Your task to perform on an android device: Clear the shopping cart on target.com. Search for macbook air on target.com, select the first entry, add it to the cart, then select checkout. Image 0: 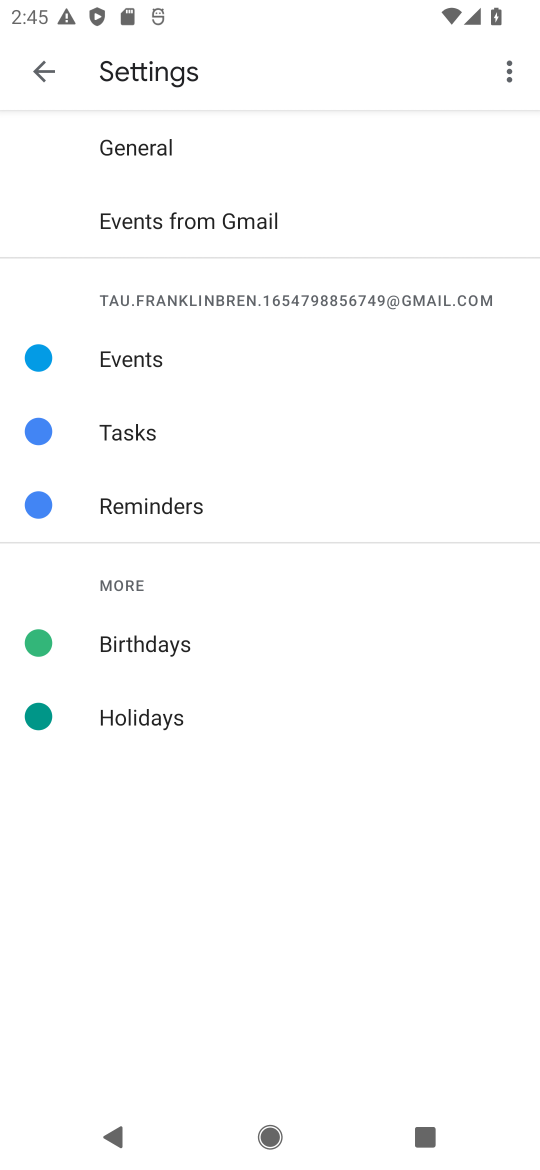
Step 0: press home button
Your task to perform on an android device: Clear the shopping cart on target.com. Search for macbook air on target.com, select the first entry, add it to the cart, then select checkout. Image 1: 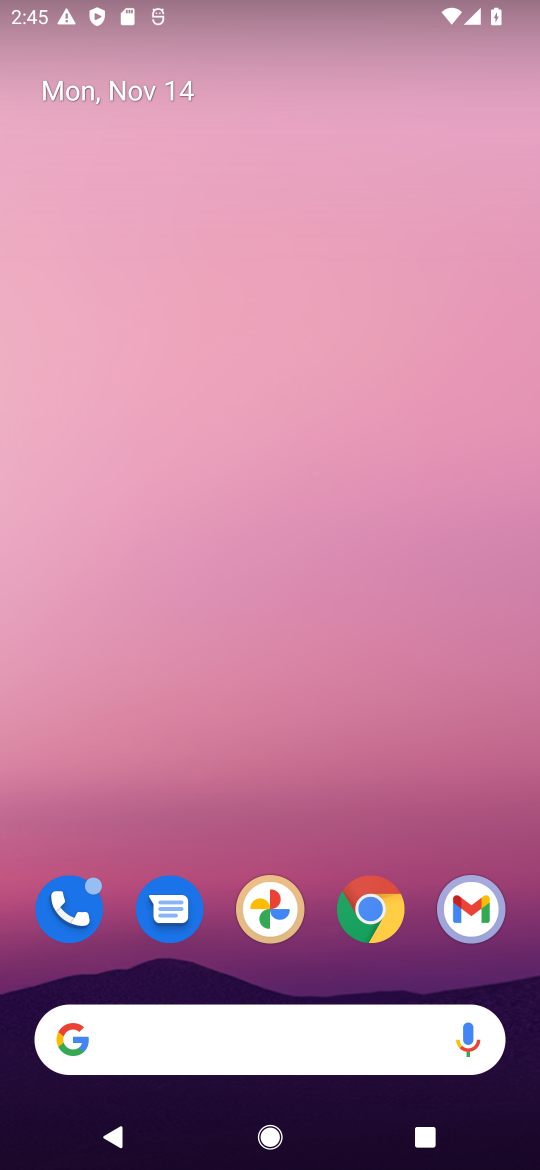
Step 1: drag from (313, 910) to (276, 4)
Your task to perform on an android device: Clear the shopping cart on target.com. Search for macbook air on target.com, select the first entry, add it to the cart, then select checkout. Image 2: 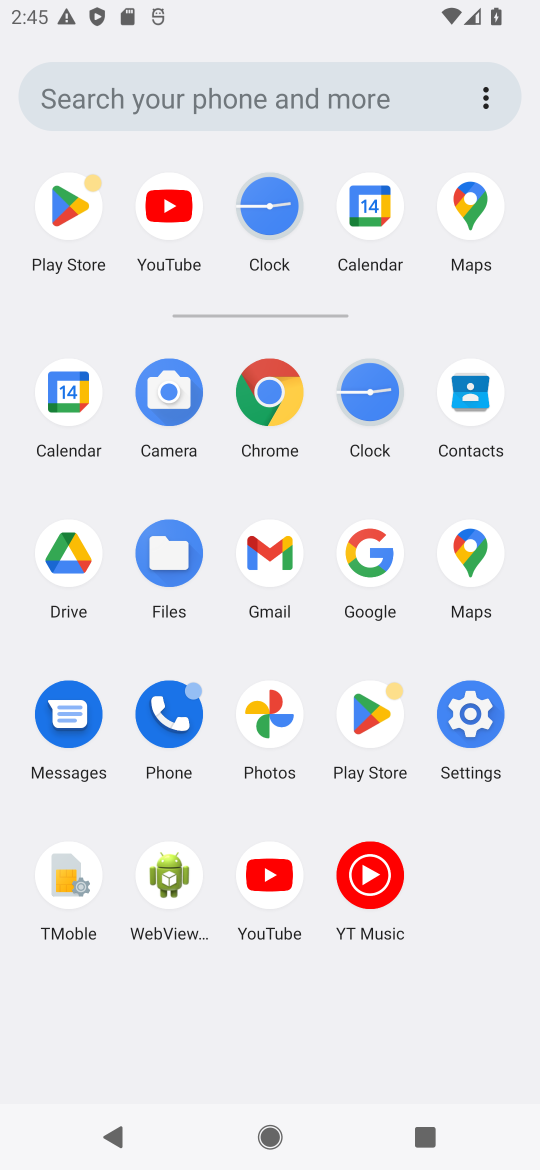
Step 2: click (276, 392)
Your task to perform on an android device: Clear the shopping cart on target.com. Search for macbook air on target.com, select the first entry, add it to the cart, then select checkout. Image 3: 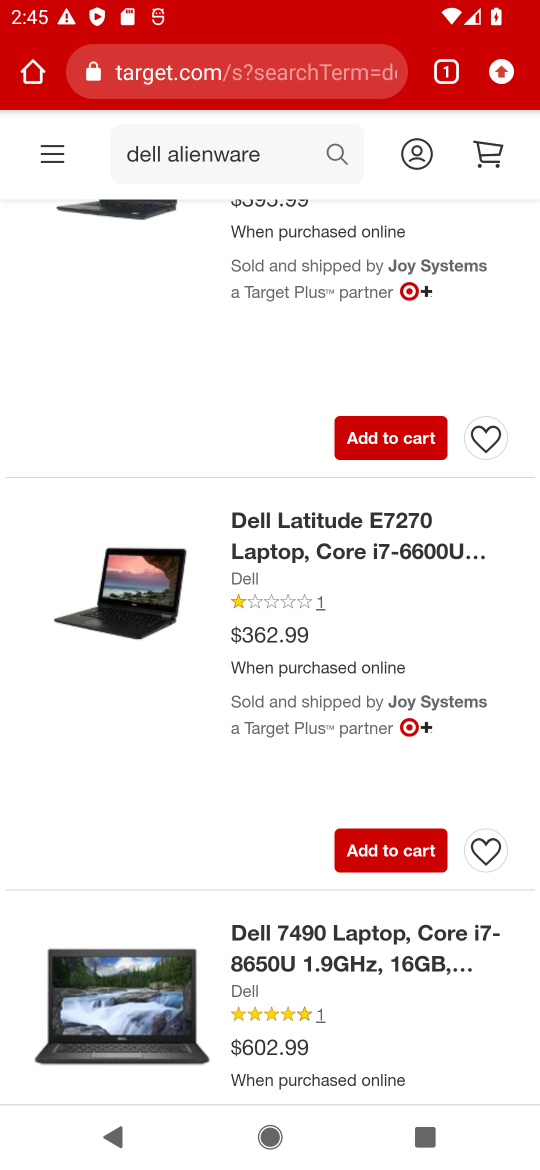
Step 3: click (299, 66)
Your task to perform on an android device: Clear the shopping cart on target.com. Search for macbook air on target.com, select the first entry, add it to the cart, then select checkout. Image 4: 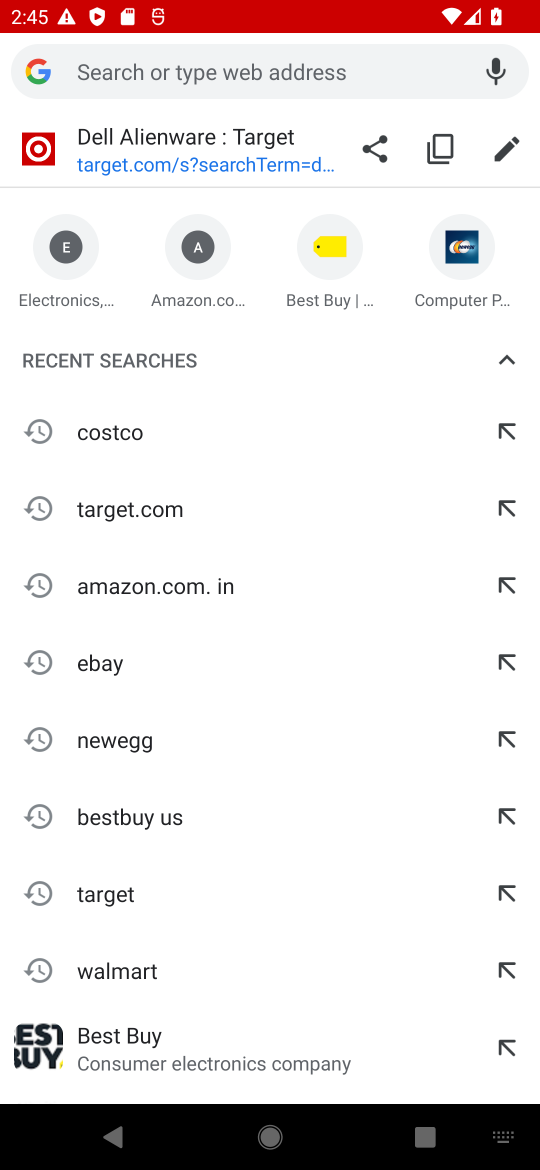
Step 4: type "targer.com"
Your task to perform on an android device: Clear the shopping cart on target.com. Search for macbook air on target.com, select the first entry, add it to the cart, then select checkout. Image 5: 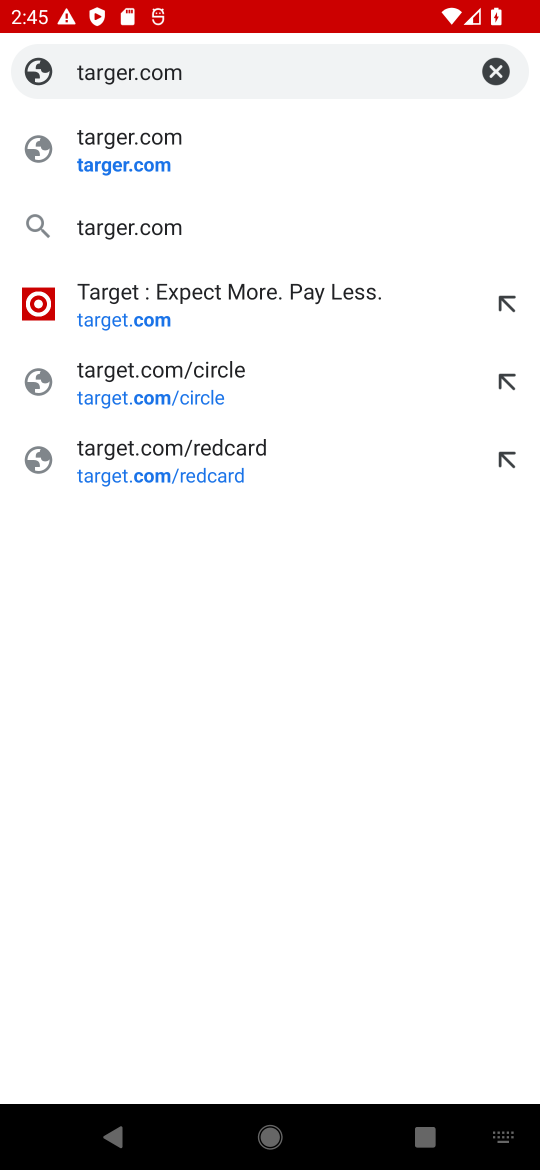
Step 5: click (136, 314)
Your task to perform on an android device: Clear the shopping cart on target.com. Search for macbook air on target.com, select the first entry, add it to the cart, then select checkout. Image 6: 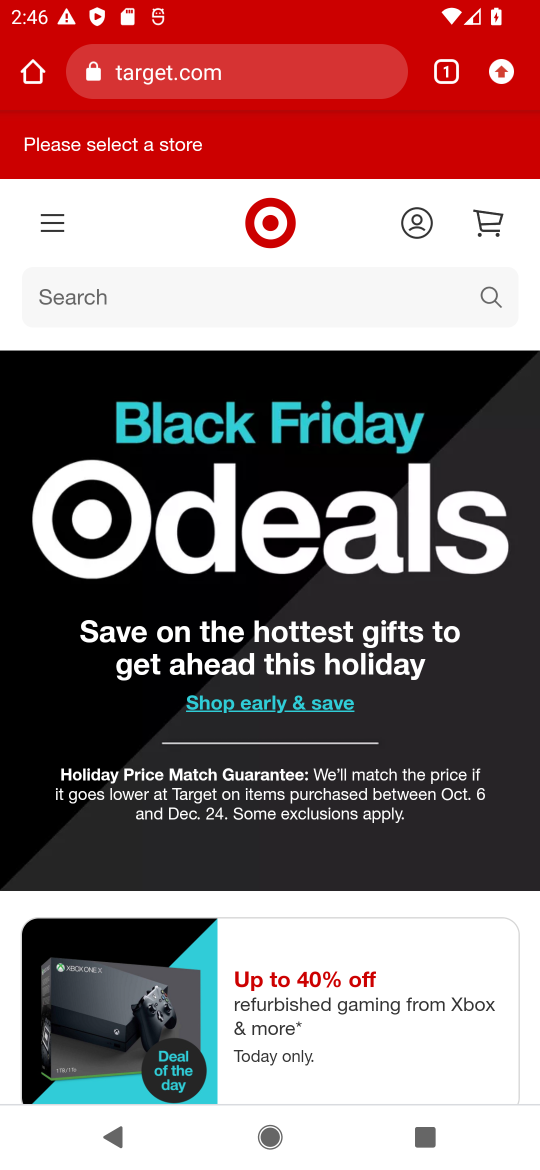
Step 6: click (490, 211)
Your task to perform on an android device: Clear the shopping cart on target.com. Search for macbook air on target.com, select the first entry, add it to the cart, then select checkout. Image 7: 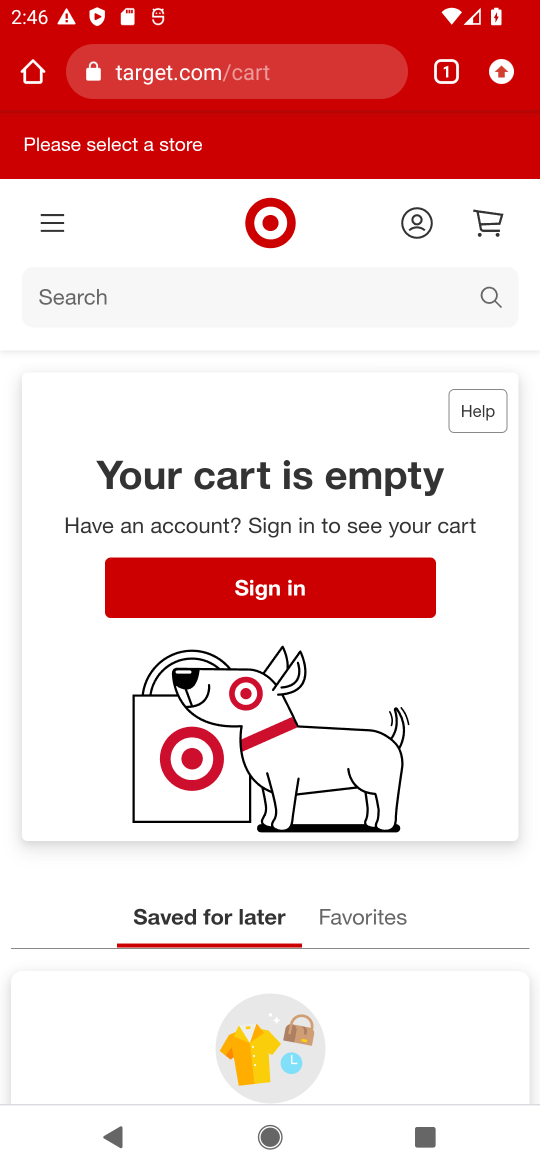
Step 7: click (315, 299)
Your task to perform on an android device: Clear the shopping cart on target.com. Search for macbook air on target.com, select the first entry, add it to the cart, then select checkout. Image 8: 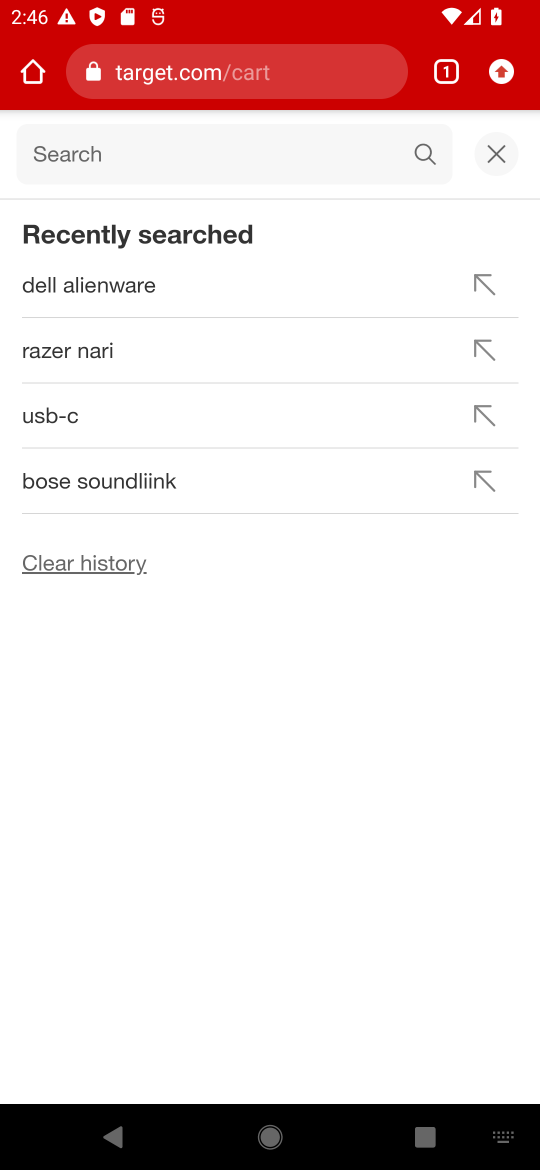
Step 8: type "macbook air"
Your task to perform on an android device: Clear the shopping cart on target.com. Search for macbook air on target.com, select the first entry, add it to the cart, then select checkout. Image 9: 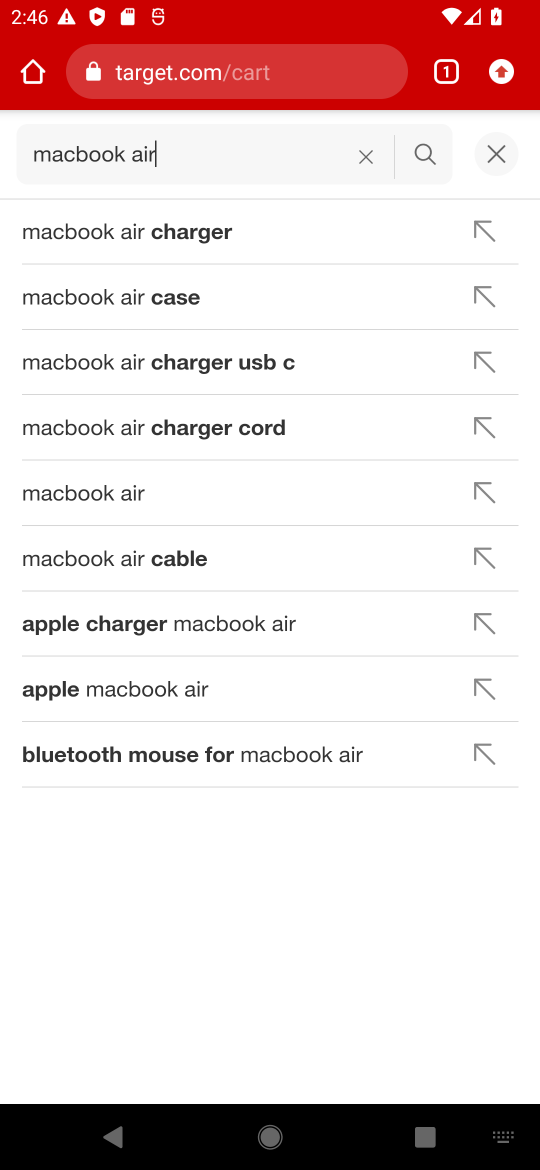
Step 9: press enter
Your task to perform on an android device: Clear the shopping cart on target.com. Search for macbook air on target.com, select the first entry, add it to the cart, then select checkout. Image 10: 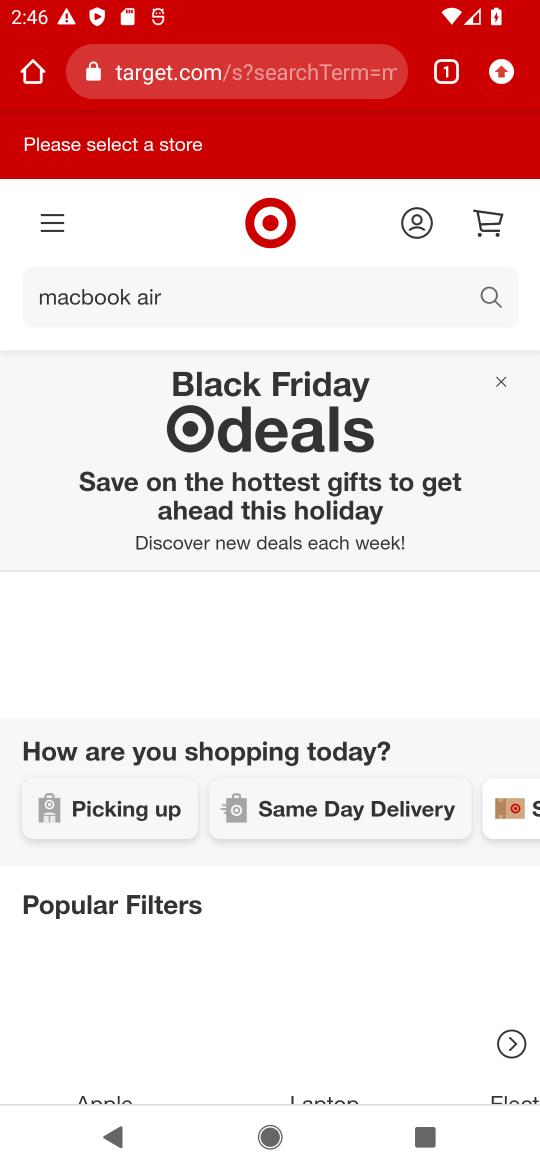
Step 10: task complete